Your task to perform on an android device: add a contact in the contacts app Image 0: 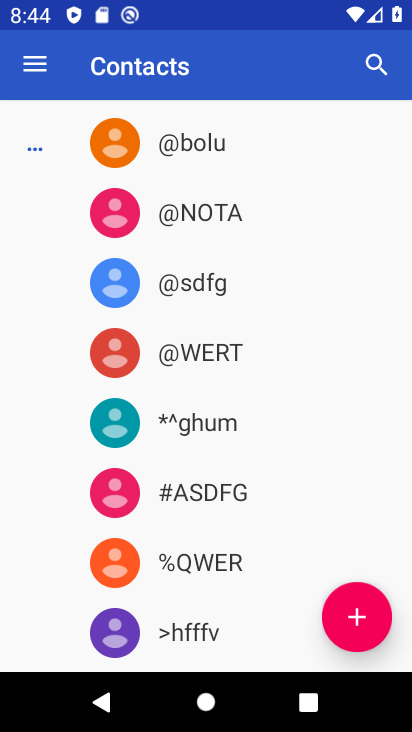
Step 0: click (359, 615)
Your task to perform on an android device: add a contact in the contacts app Image 1: 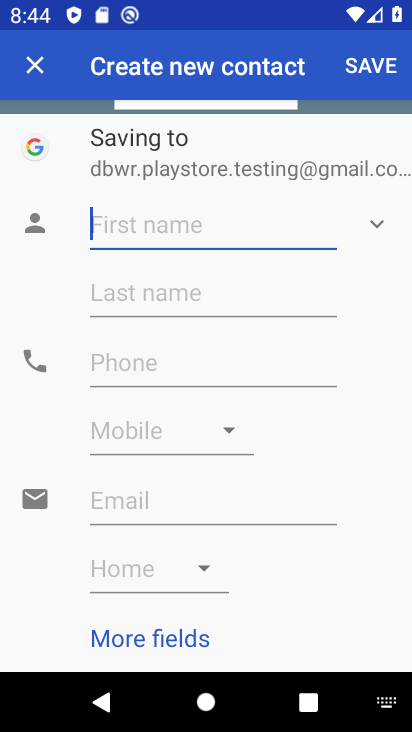
Step 1: click (261, 230)
Your task to perform on an android device: add a contact in the contacts app Image 2: 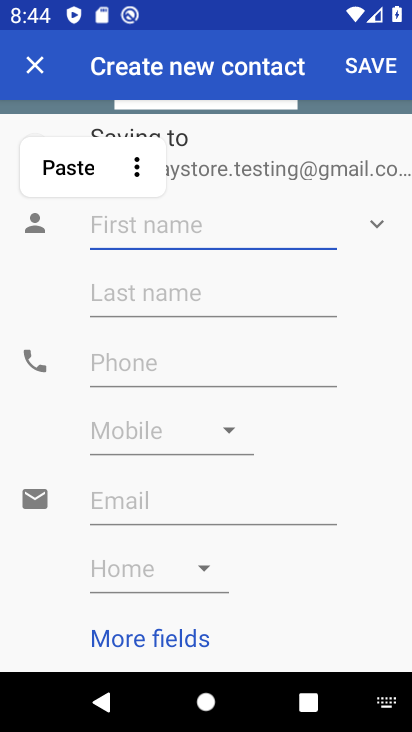
Step 2: type "jiij"
Your task to perform on an android device: add a contact in the contacts app Image 3: 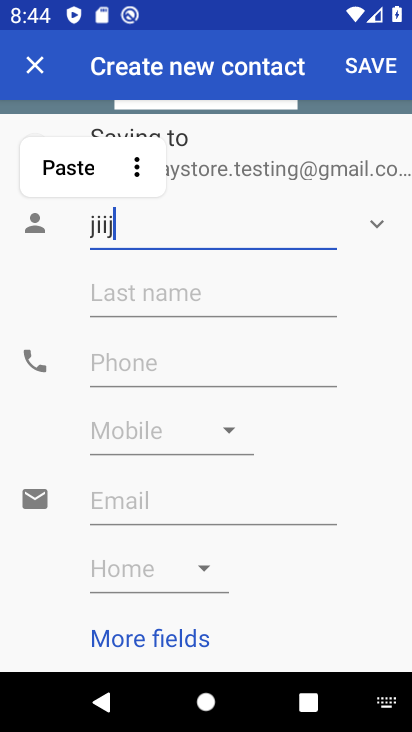
Step 3: type ""
Your task to perform on an android device: add a contact in the contacts app Image 4: 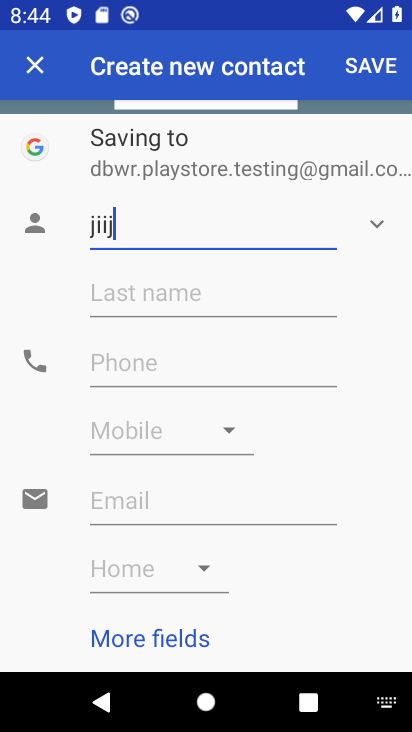
Step 4: click (377, 63)
Your task to perform on an android device: add a contact in the contacts app Image 5: 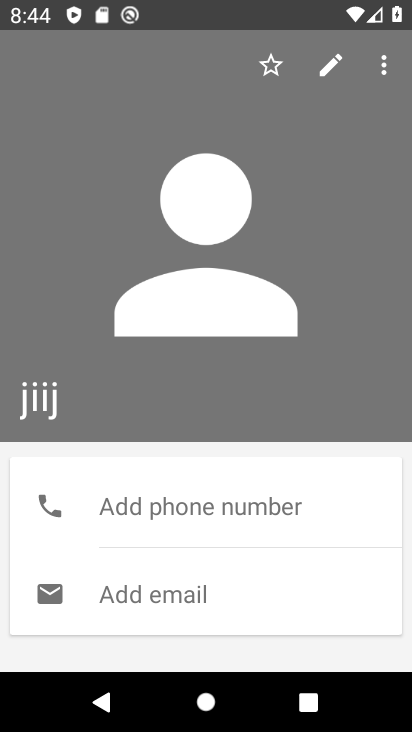
Step 5: task complete